Your task to perform on an android device: Search for Italian restaurants on Maps Image 0: 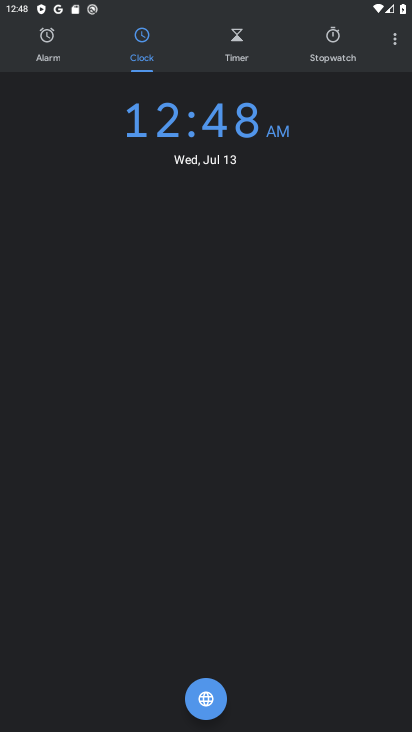
Step 0: press home button
Your task to perform on an android device: Search for Italian restaurants on Maps Image 1: 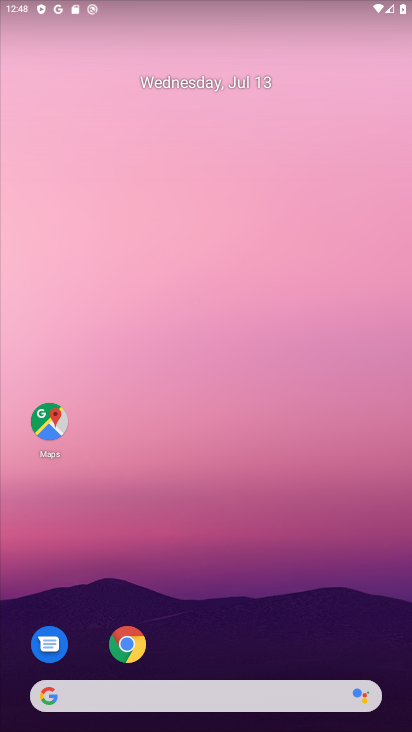
Step 1: click (52, 416)
Your task to perform on an android device: Search for Italian restaurants on Maps Image 2: 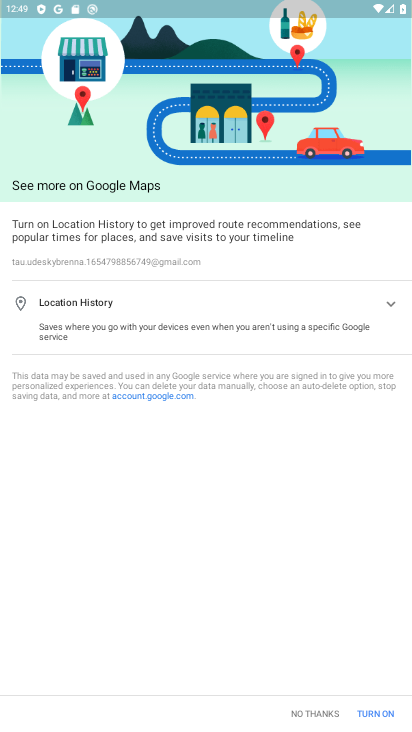
Step 2: press back button
Your task to perform on an android device: Search for Italian restaurants on Maps Image 3: 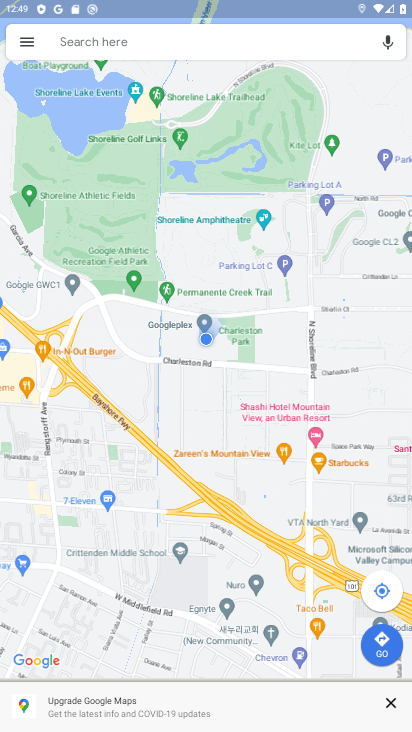
Step 3: click (222, 47)
Your task to perform on an android device: Search for Italian restaurants on Maps Image 4: 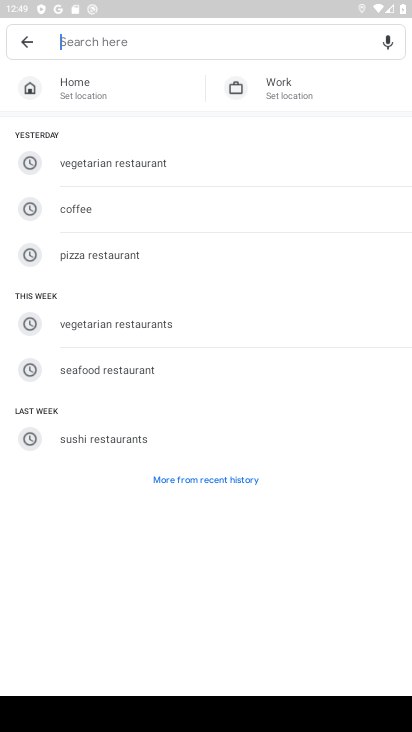
Step 4: type "Italian restaurants"
Your task to perform on an android device: Search for Italian restaurants on Maps Image 5: 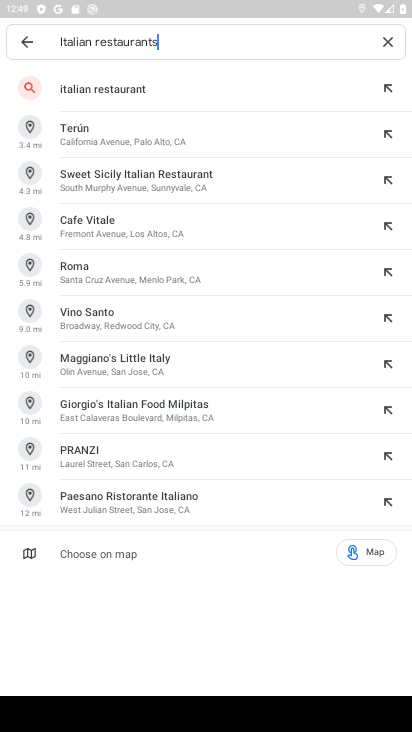
Step 5: click (229, 83)
Your task to perform on an android device: Search for Italian restaurants on Maps Image 6: 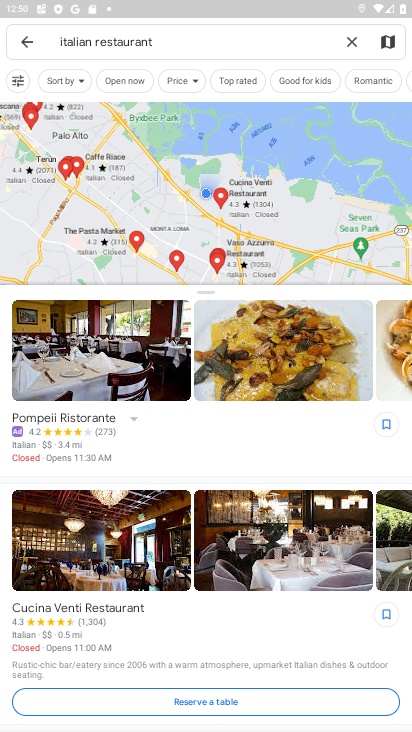
Step 6: task complete